Your task to perform on an android device: Open CNN.com Image 0: 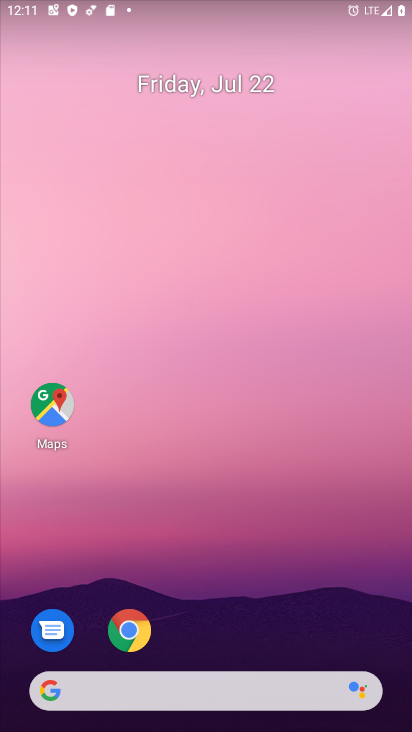
Step 0: click (141, 627)
Your task to perform on an android device: Open CNN.com Image 1: 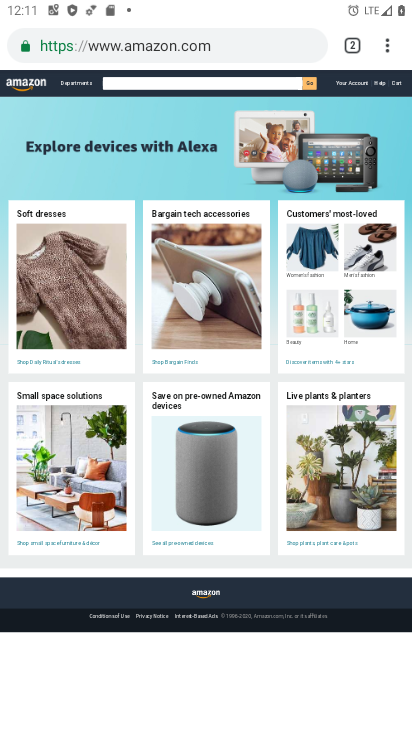
Step 1: click (353, 39)
Your task to perform on an android device: Open CNN.com Image 2: 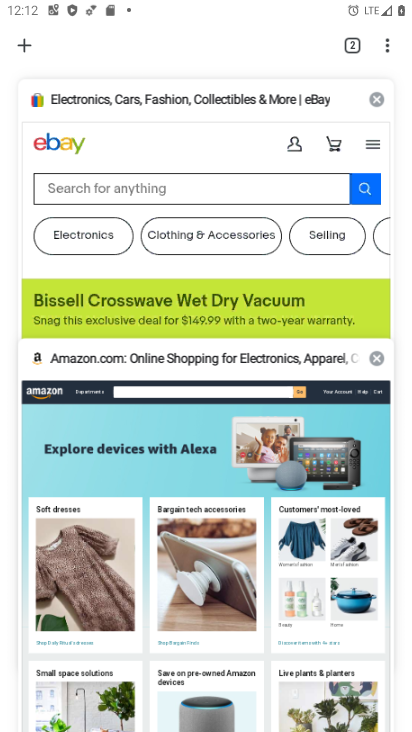
Step 2: click (19, 42)
Your task to perform on an android device: Open CNN.com Image 3: 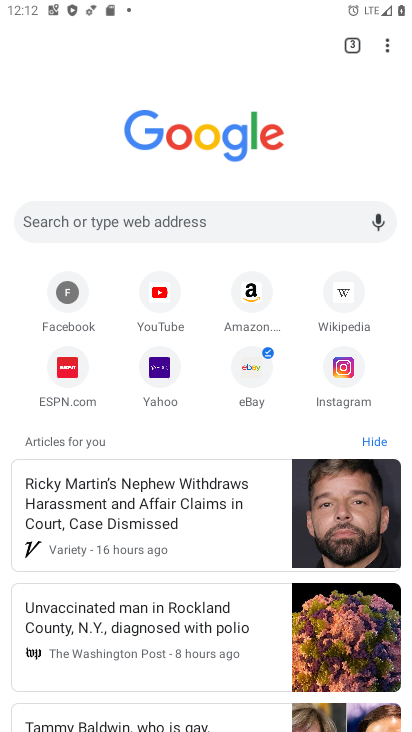
Step 3: click (140, 211)
Your task to perform on an android device: Open CNN.com Image 4: 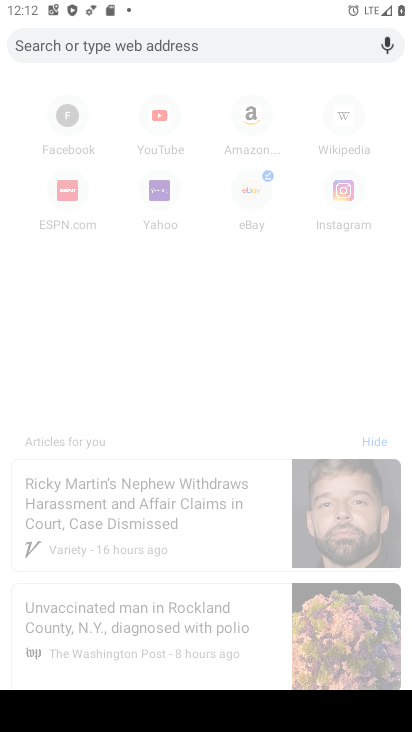
Step 4: type "cnn.com"
Your task to perform on an android device: Open CNN.com Image 5: 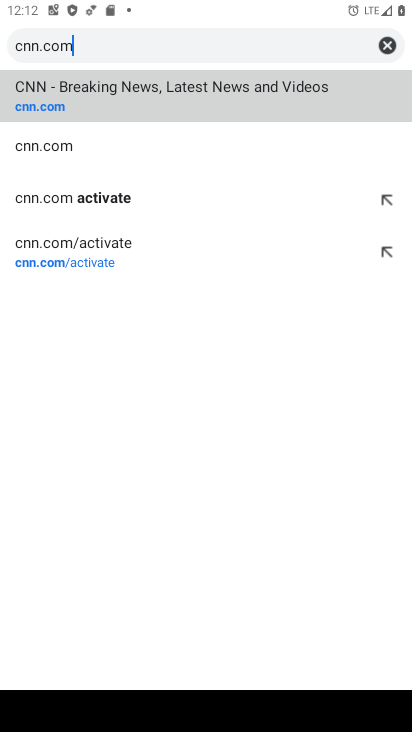
Step 5: click (106, 104)
Your task to perform on an android device: Open CNN.com Image 6: 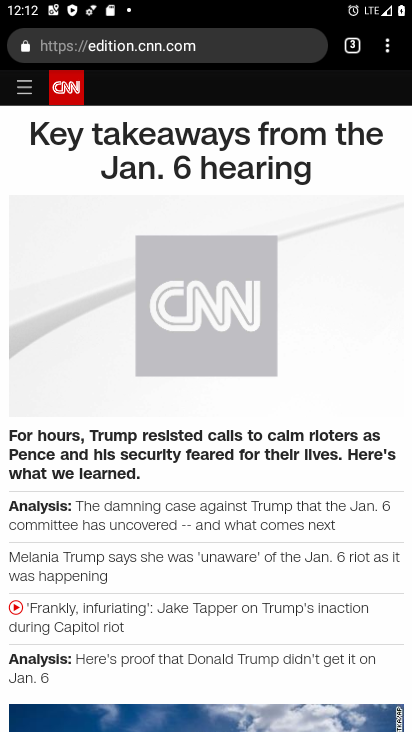
Step 6: drag from (198, 637) to (200, 197)
Your task to perform on an android device: Open CNN.com Image 7: 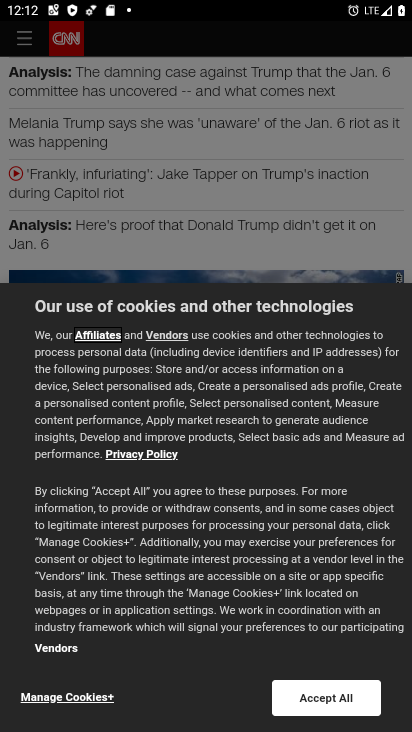
Step 7: click (264, 249)
Your task to perform on an android device: Open CNN.com Image 8: 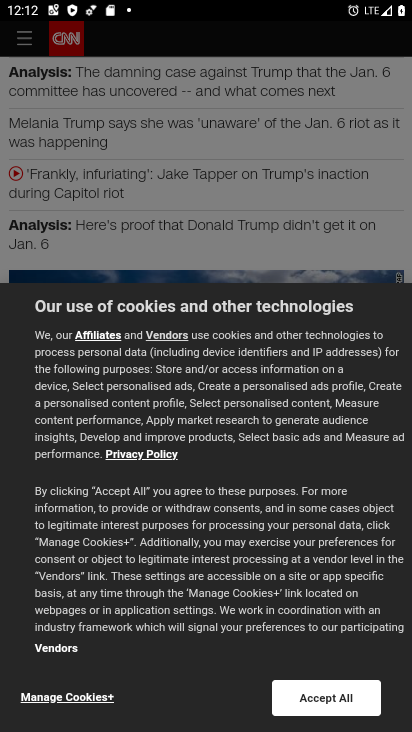
Step 8: task complete